Your task to perform on an android device: Go to calendar. Show me events next week Image 0: 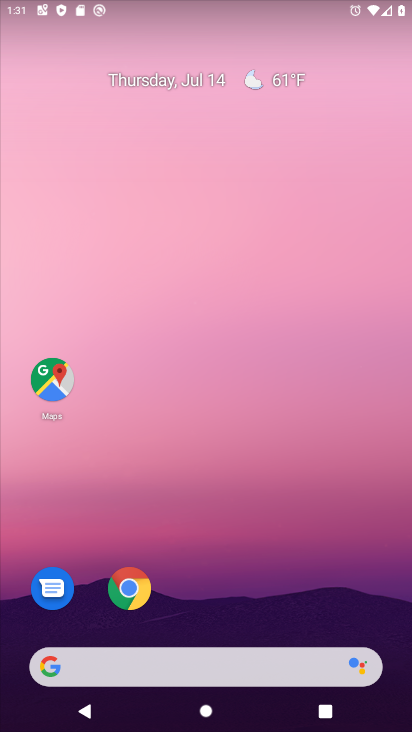
Step 0: drag from (304, 612) to (296, 248)
Your task to perform on an android device: Go to calendar. Show me events next week Image 1: 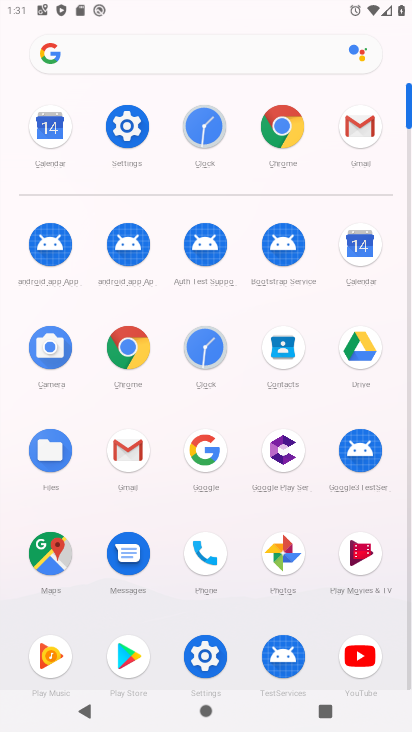
Step 1: click (357, 252)
Your task to perform on an android device: Go to calendar. Show me events next week Image 2: 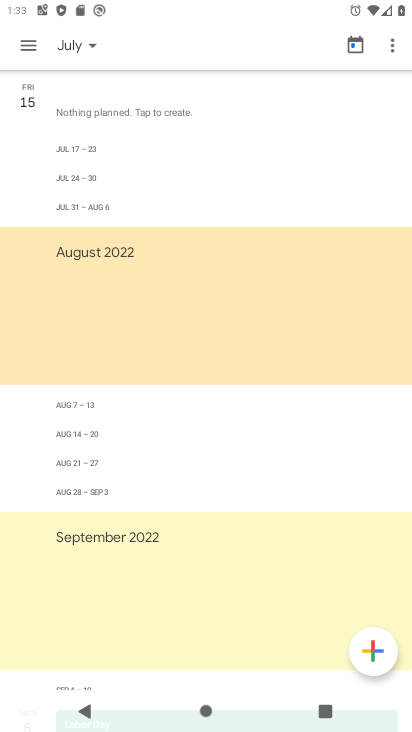
Step 2: task complete